Your task to perform on an android device: turn on bluetooth scan Image 0: 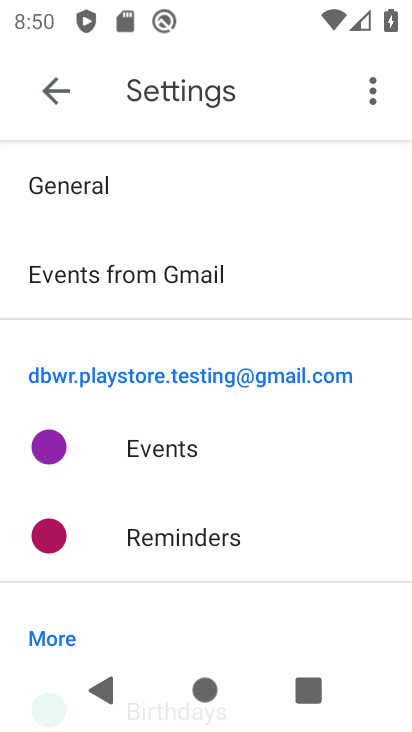
Step 0: press home button
Your task to perform on an android device: turn on bluetooth scan Image 1: 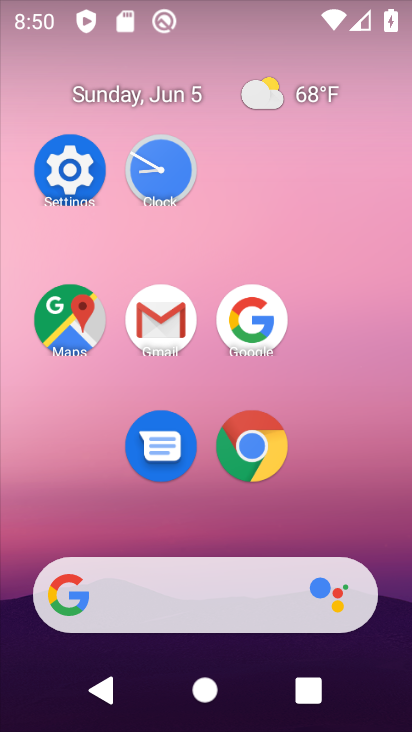
Step 1: click (69, 163)
Your task to perform on an android device: turn on bluetooth scan Image 2: 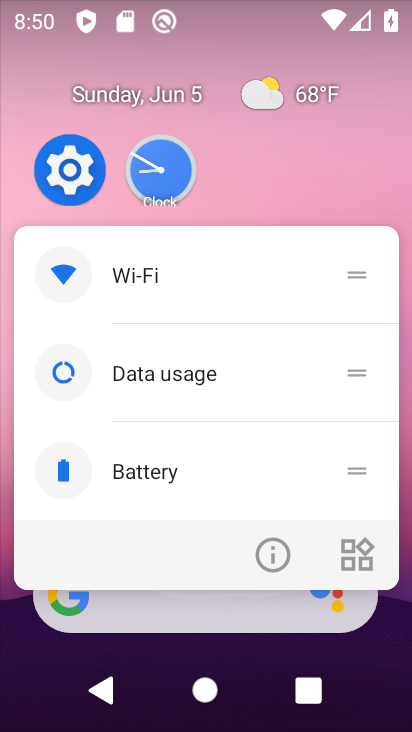
Step 2: click (100, 149)
Your task to perform on an android device: turn on bluetooth scan Image 3: 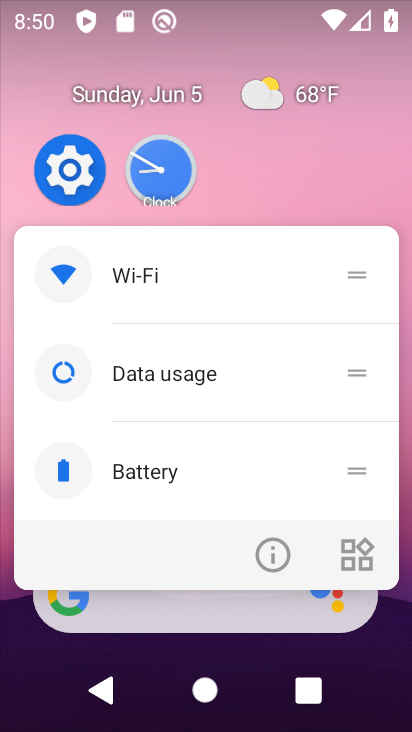
Step 3: click (76, 152)
Your task to perform on an android device: turn on bluetooth scan Image 4: 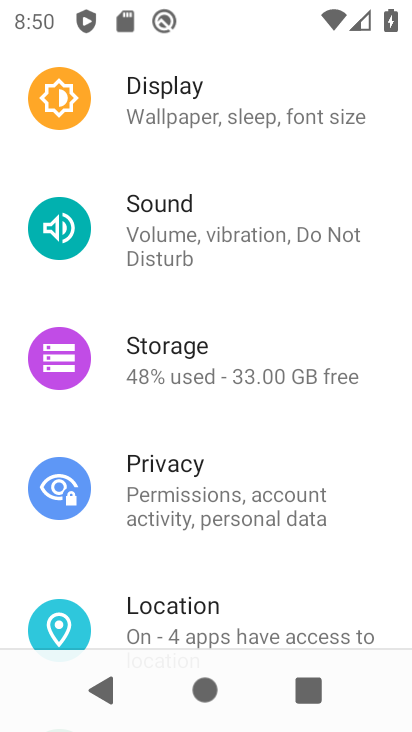
Step 4: click (155, 593)
Your task to perform on an android device: turn on bluetooth scan Image 5: 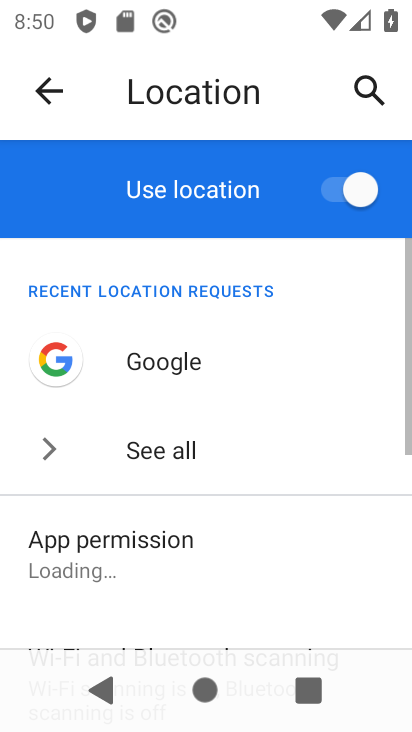
Step 5: drag from (154, 593) to (184, 290)
Your task to perform on an android device: turn on bluetooth scan Image 6: 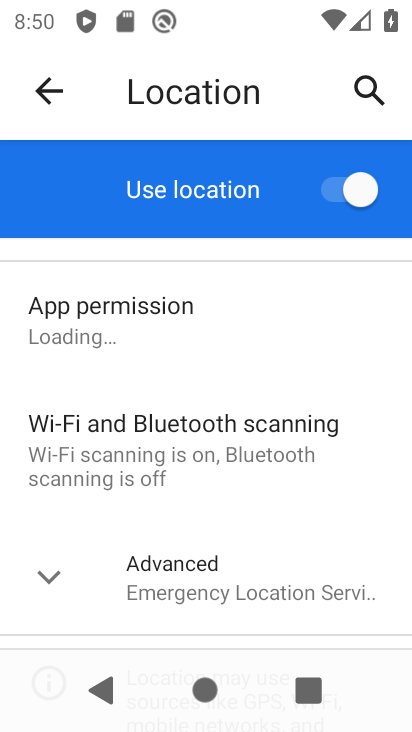
Step 6: click (194, 440)
Your task to perform on an android device: turn on bluetooth scan Image 7: 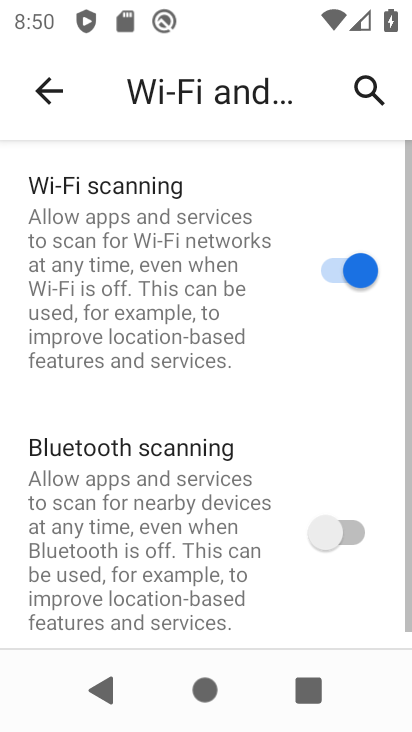
Step 7: click (304, 545)
Your task to perform on an android device: turn on bluetooth scan Image 8: 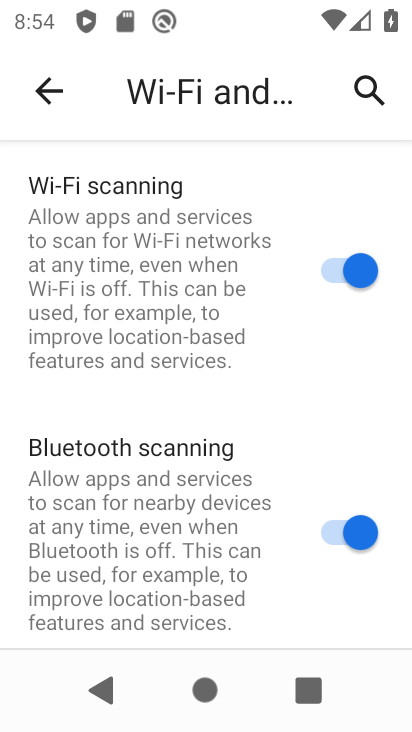
Step 8: task complete